Your task to perform on an android device: Open location settings Image 0: 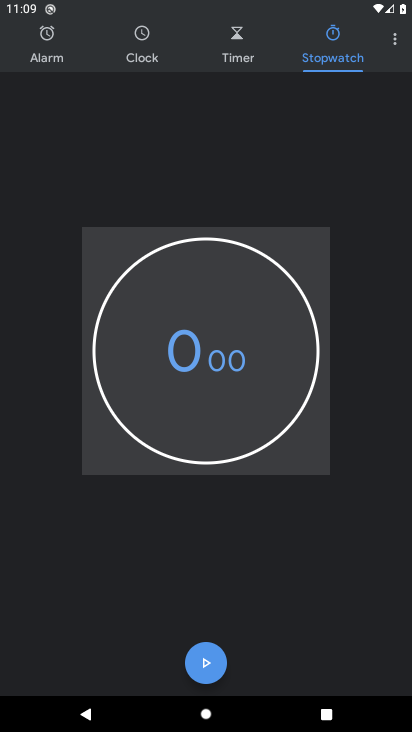
Step 0: press home button
Your task to perform on an android device: Open location settings Image 1: 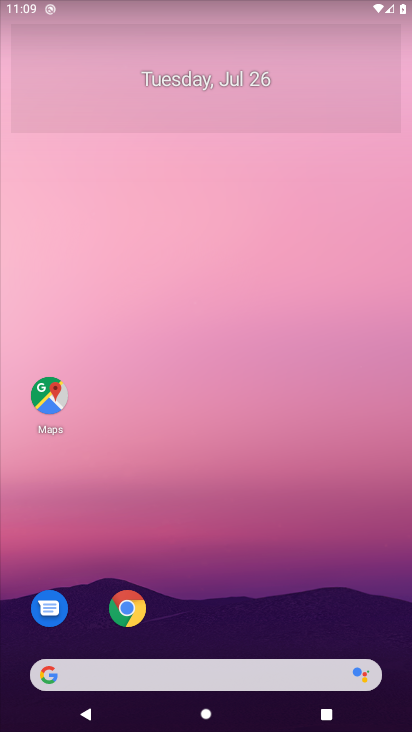
Step 1: drag from (248, 441) to (220, 223)
Your task to perform on an android device: Open location settings Image 2: 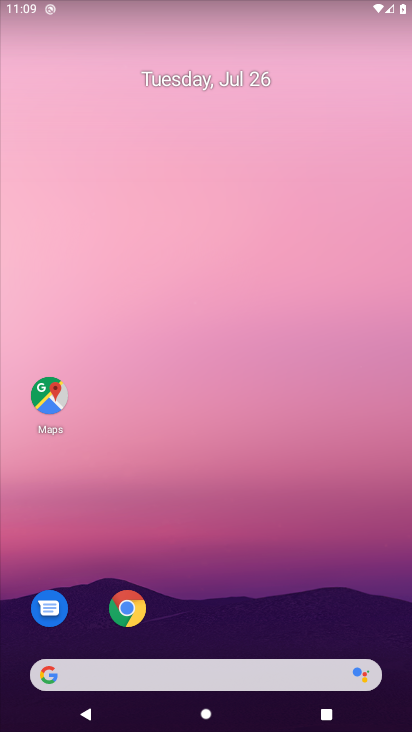
Step 2: drag from (229, 588) to (229, 187)
Your task to perform on an android device: Open location settings Image 3: 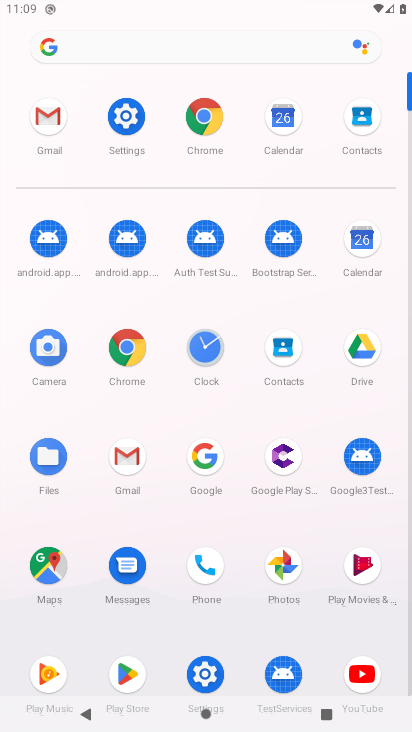
Step 3: click (115, 111)
Your task to perform on an android device: Open location settings Image 4: 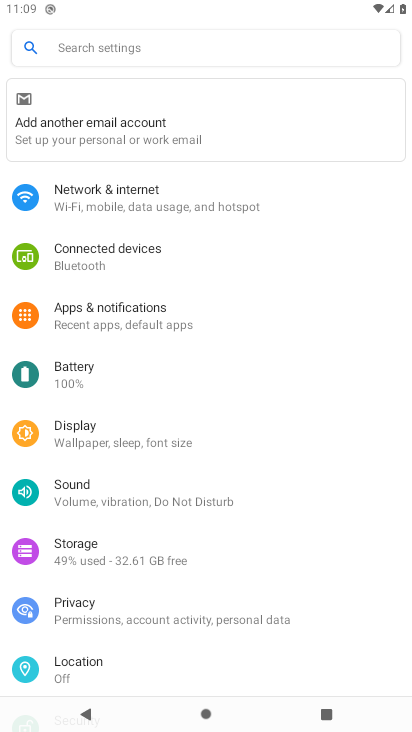
Step 4: click (74, 654)
Your task to perform on an android device: Open location settings Image 5: 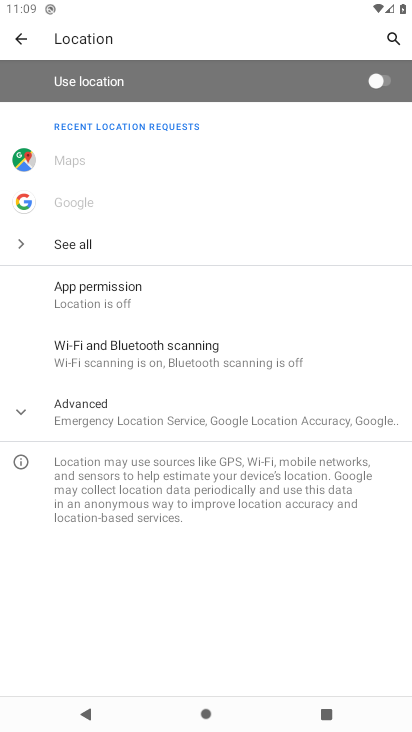
Step 5: task complete